Your task to perform on an android device: What's the weather going to be tomorrow? Image 0: 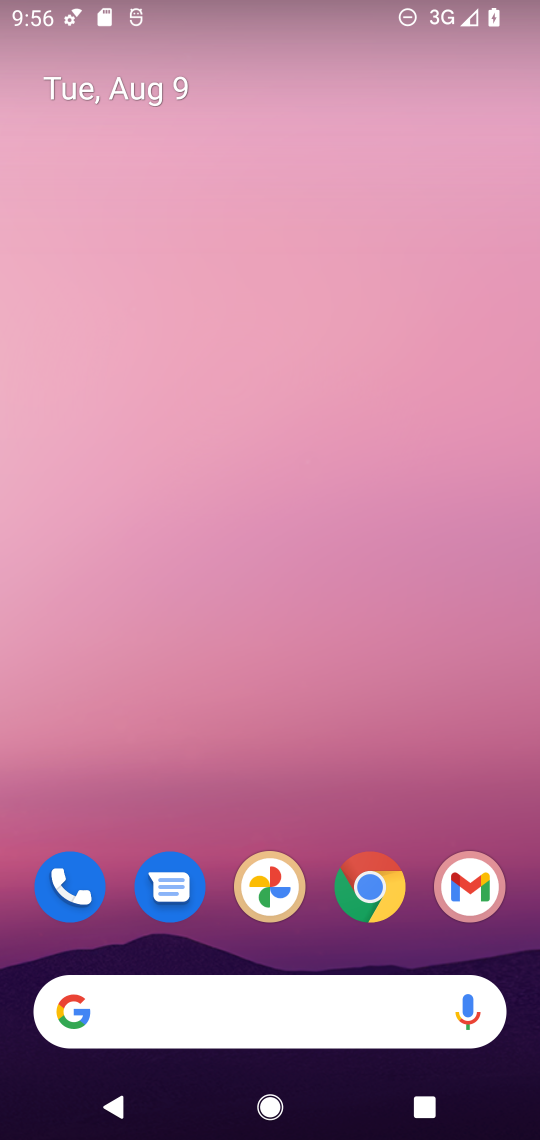
Step 0: drag from (319, 819) to (326, 215)
Your task to perform on an android device: What's the weather going to be tomorrow? Image 1: 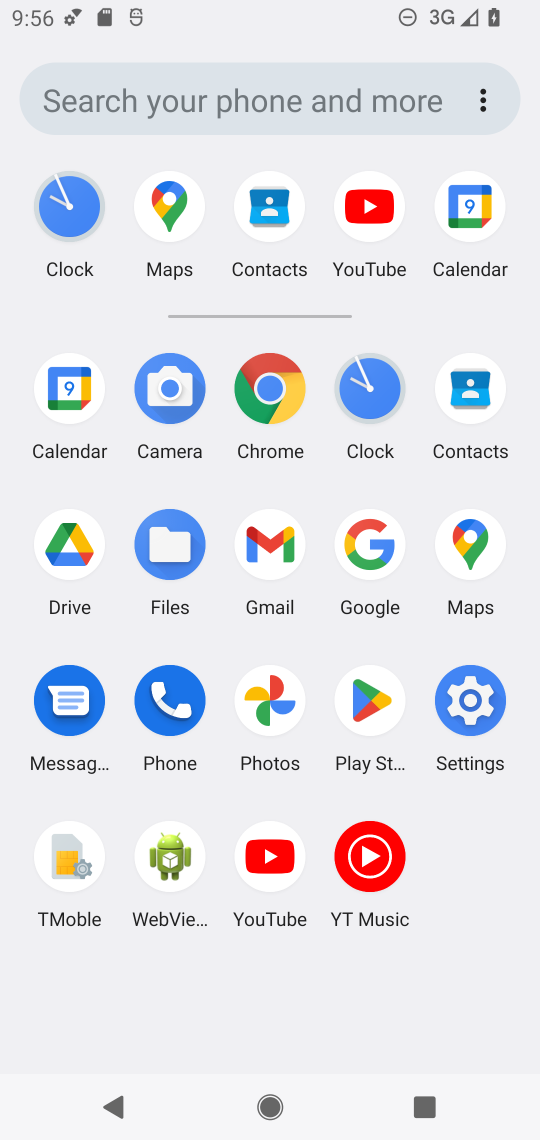
Step 1: click (376, 553)
Your task to perform on an android device: What's the weather going to be tomorrow? Image 2: 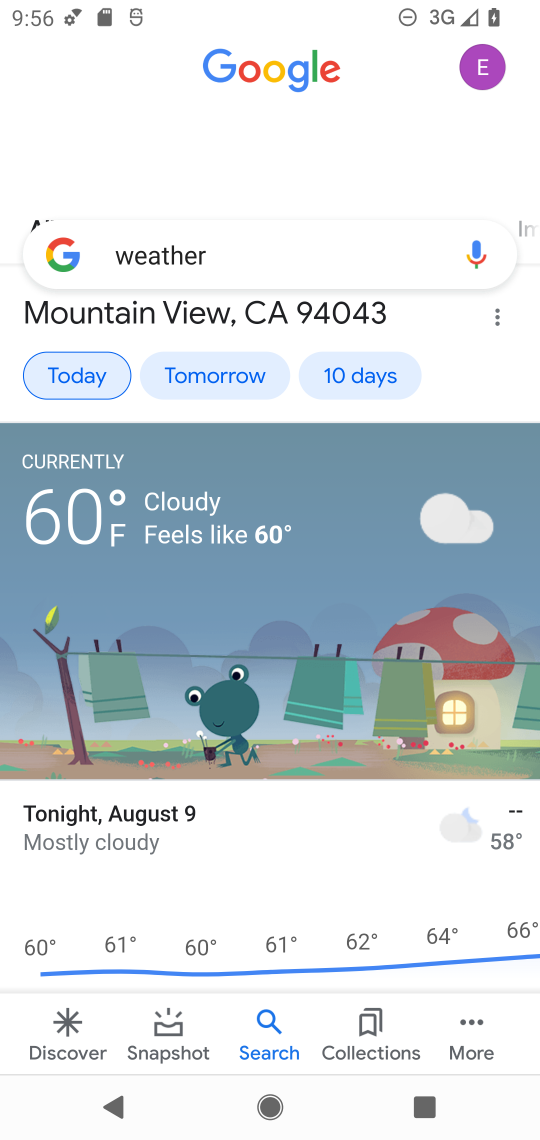
Step 2: click (234, 385)
Your task to perform on an android device: What's the weather going to be tomorrow? Image 3: 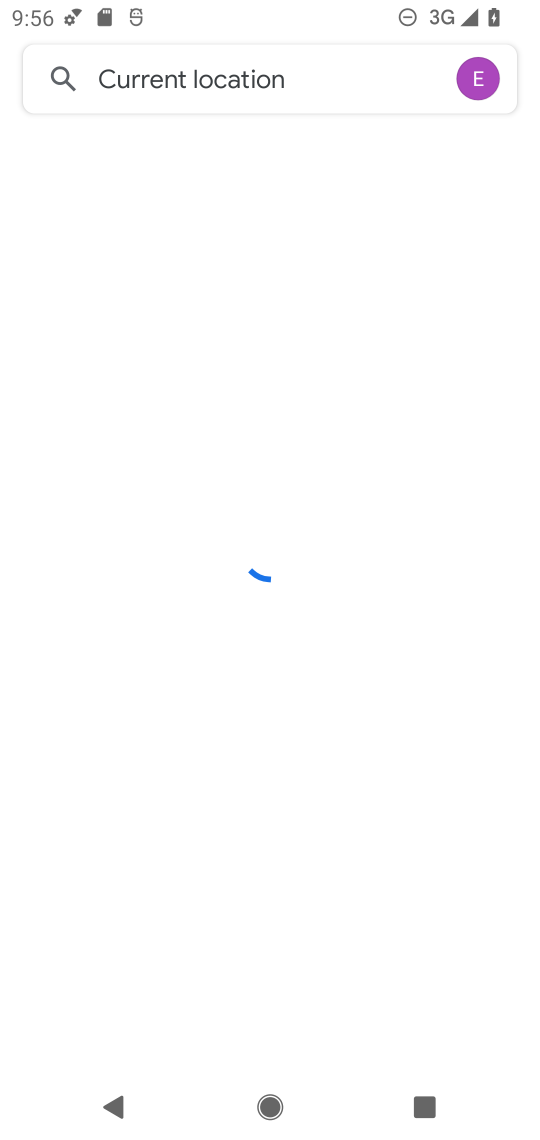
Step 3: task complete